Your task to perform on an android device: refresh tabs in the chrome app Image 0: 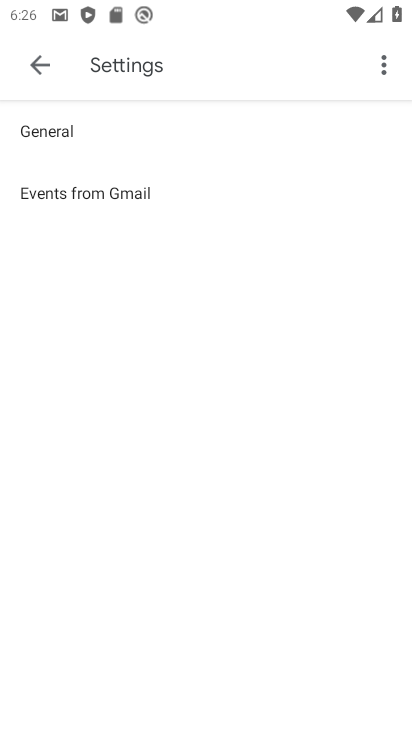
Step 0: press home button
Your task to perform on an android device: refresh tabs in the chrome app Image 1: 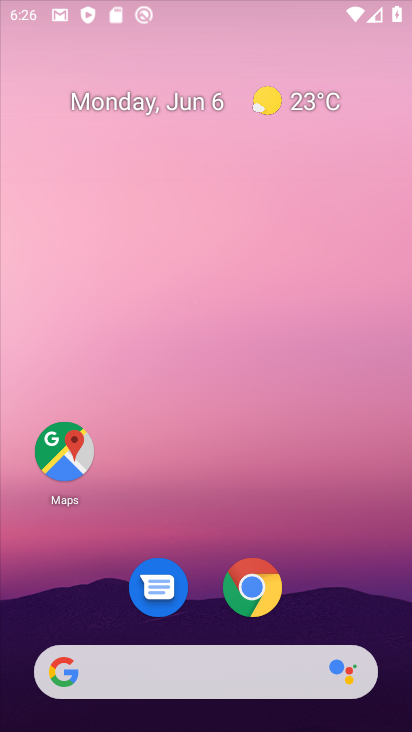
Step 1: drag from (390, 640) to (304, 21)
Your task to perform on an android device: refresh tabs in the chrome app Image 2: 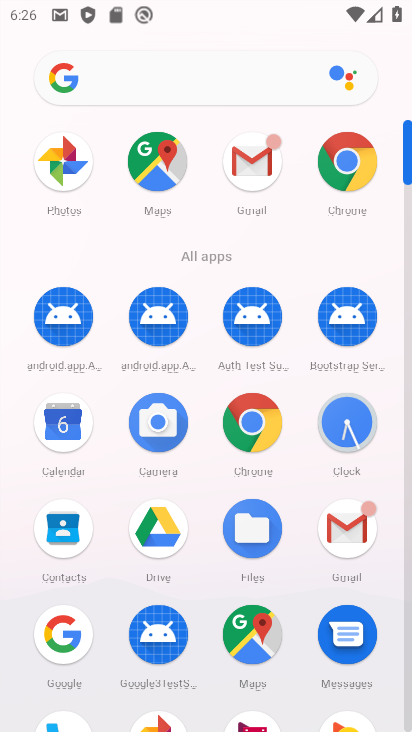
Step 2: click (340, 214)
Your task to perform on an android device: refresh tabs in the chrome app Image 3: 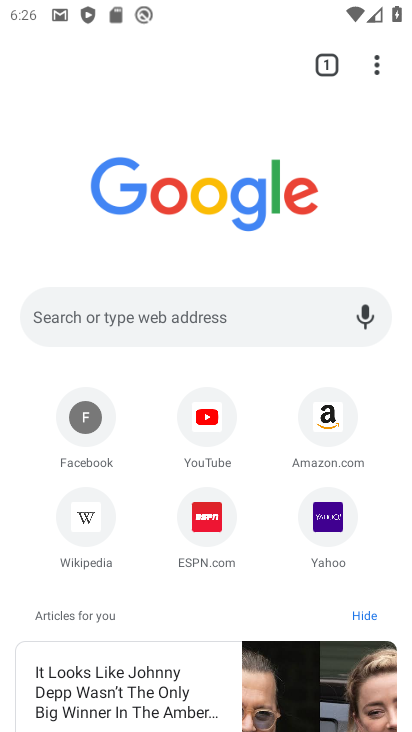
Step 3: click (377, 60)
Your task to perform on an android device: refresh tabs in the chrome app Image 4: 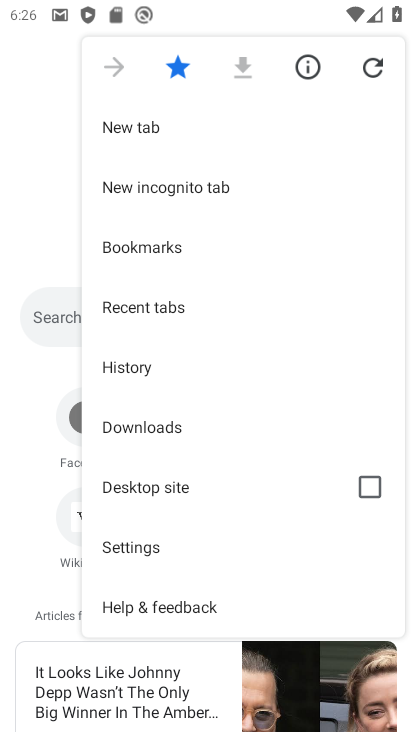
Step 4: click (377, 60)
Your task to perform on an android device: refresh tabs in the chrome app Image 5: 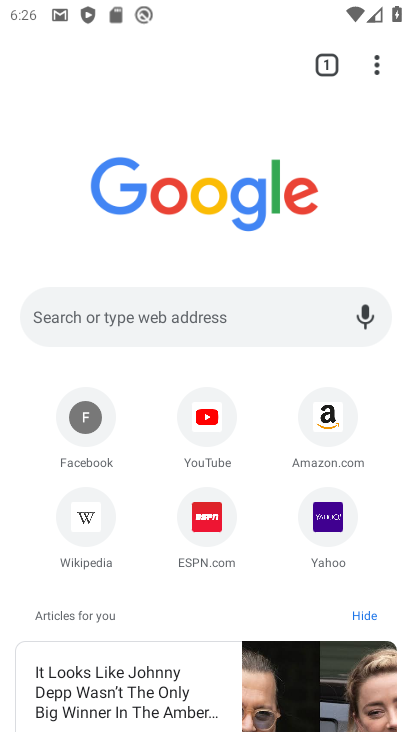
Step 5: task complete